Your task to perform on an android device: find photos in the google photos app Image 0: 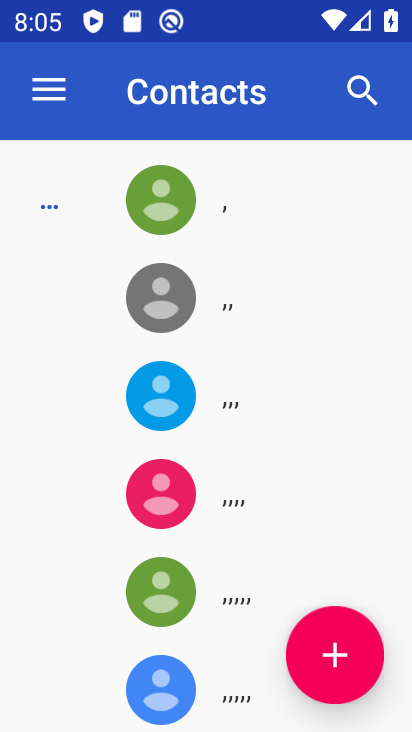
Step 0: press home button
Your task to perform on an android device: find photos in the google photos app Image 1: 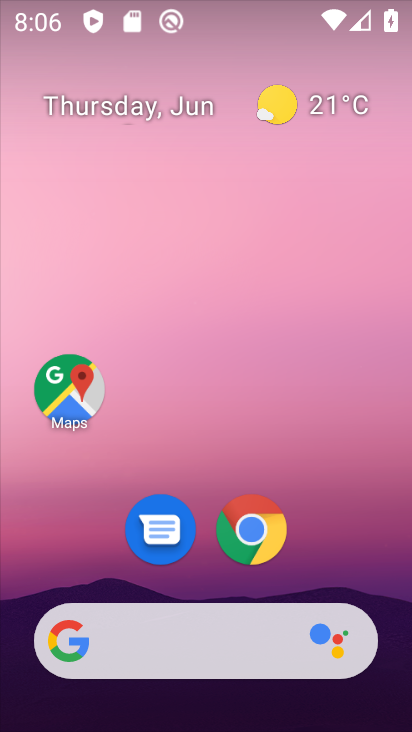
Step 1: drag from (326, 532) to (209, 22)
Your task to perform on an android device: find photos in the google photos app Image 2: 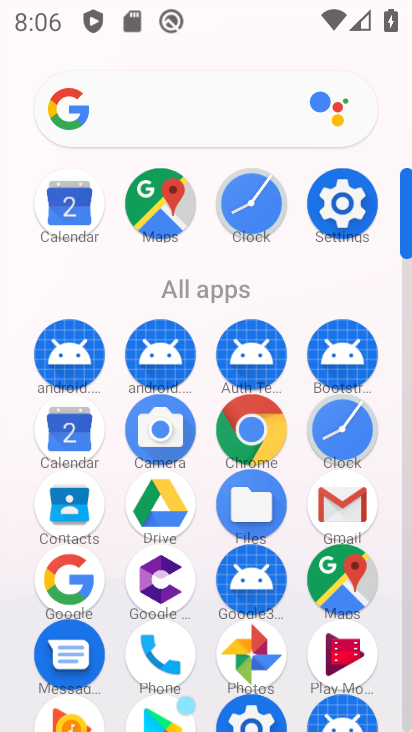
Step 2: click (245, 641)
Your task to perform on an android device: find photos in the google photos app Image 3: 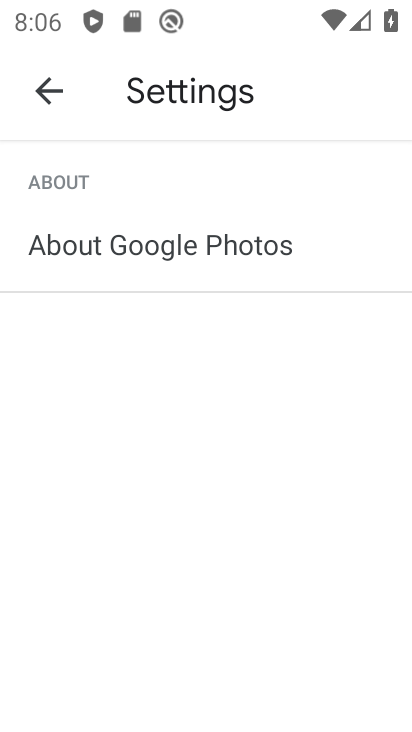
Step 3: click (50, 92)
Your task to perform on an android device: find photos in the google photos app Image 4: 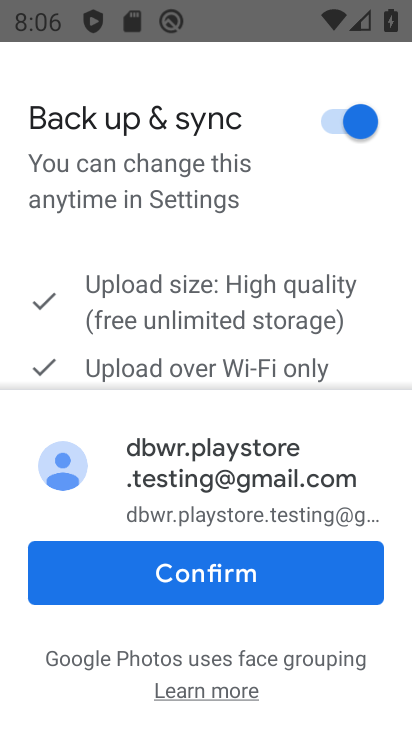
Step 4: click (210, 580)
Your task to perform on an android device: find photos in the google photos app Image 5: 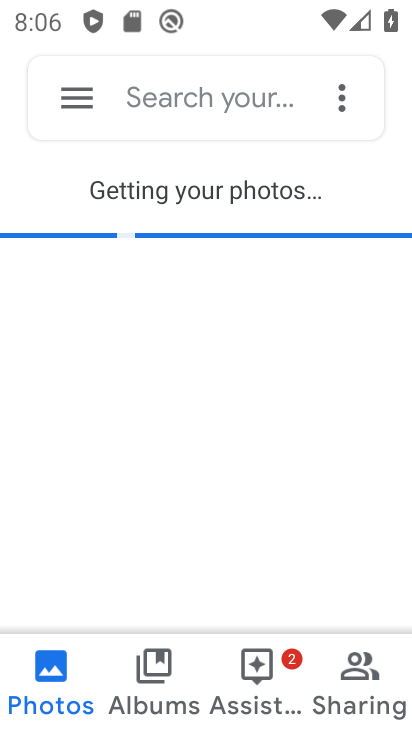
Step 5: click (173, 92)
Your task to perform on an android device: find photos in the google photos app Image 6: 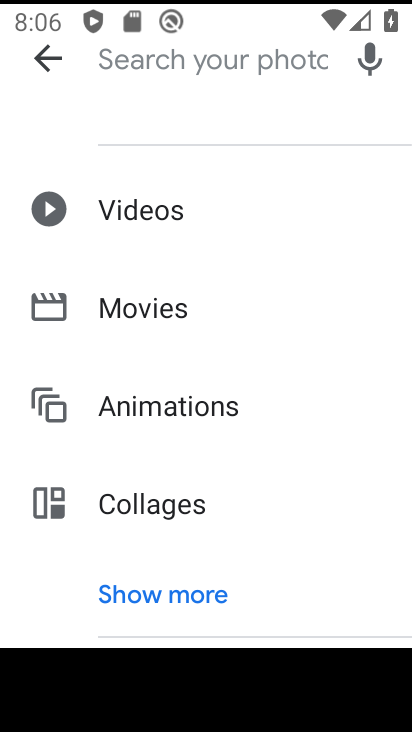
Step 6: task complete